Your task to perform on an android device: move a message to another label in the gmail app Image 0: 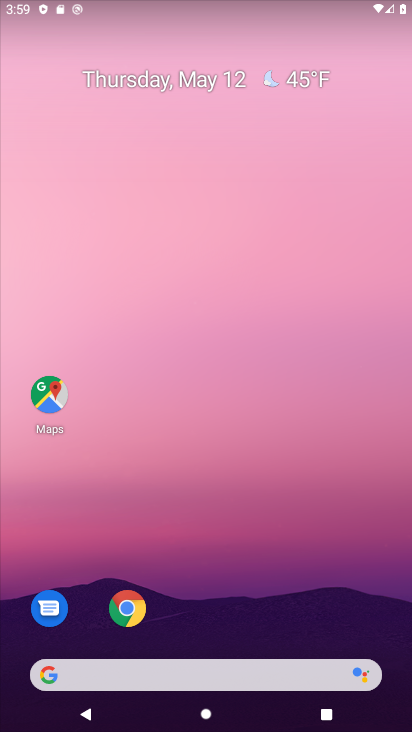
Step 0: drag from (285, 631) to (144, 77)
Your task to perform on an android device: move a message to another label in the gmail app Image 1: 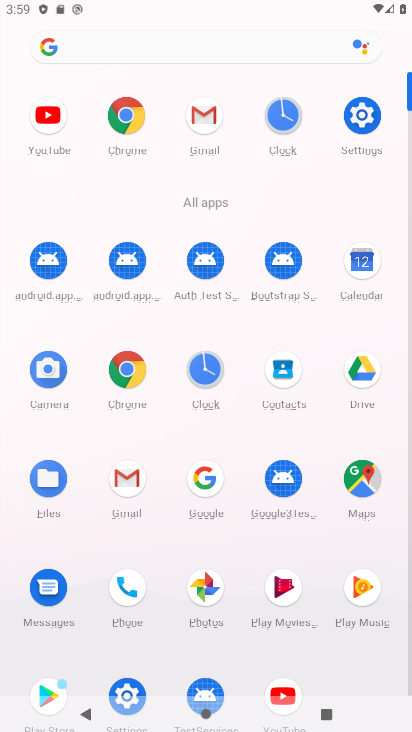
Step 1: click (204, 131)
Your task to perform on an android device: move a message to another label in the gmail app Image 2: 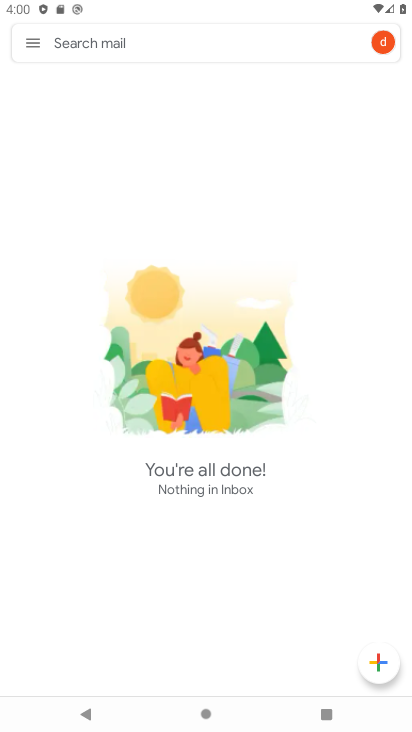
Step 2: click (31, 41)
Your task to perform on an android device: move a message to another label in the gmail app Image 3: 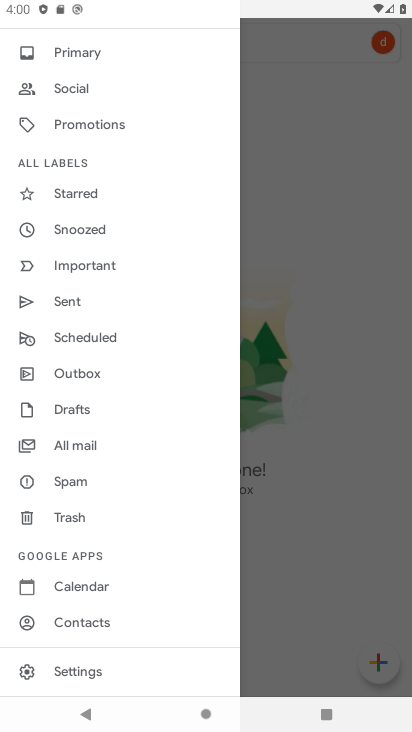
Step 3: click (102, 442)
Your task to perform on an android device: move a message to another label in the gmail app Image 4: 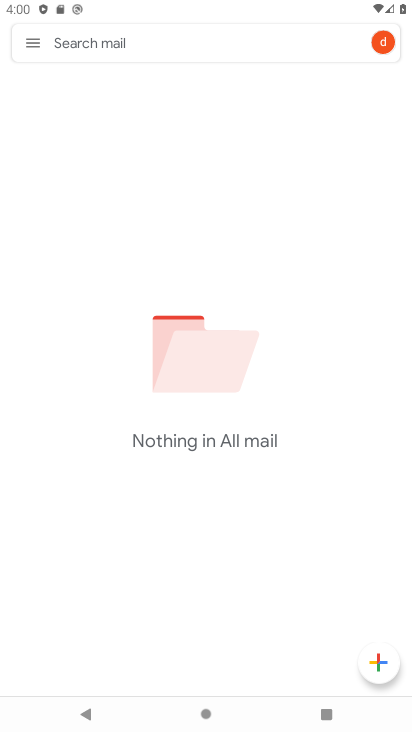
Step 4: task complete